Your task to perform on an android device: Show me the alarms in the clock app Image 0: 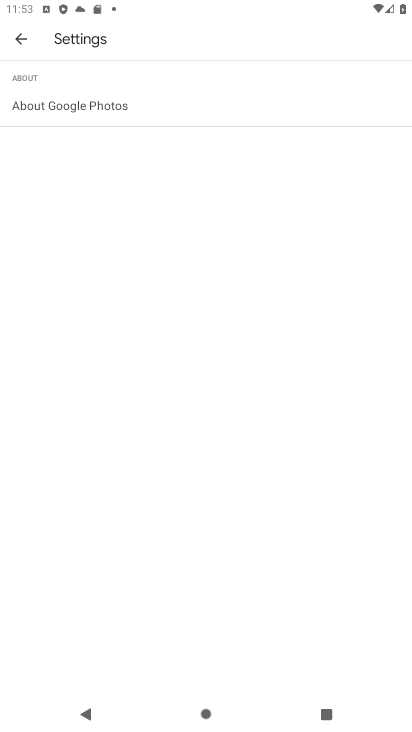
Step 0: press home button
Your task to perform on an android device: Show me the alarms in the clock app Image 1: 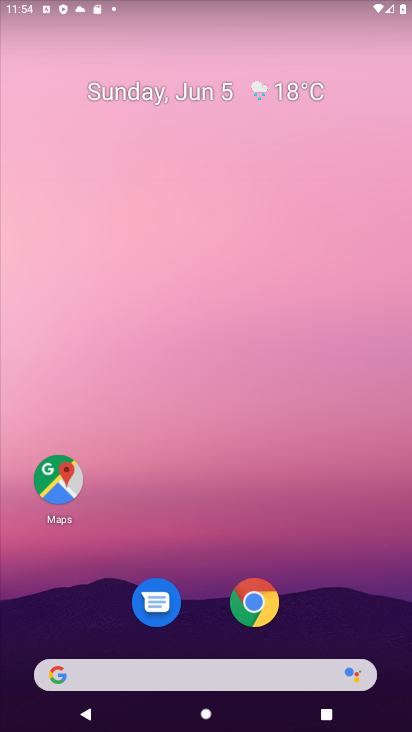
Step 1: task complete